Your task to perform on an android device: Open the Play Movies app and select the watchlist tab. Image 0: 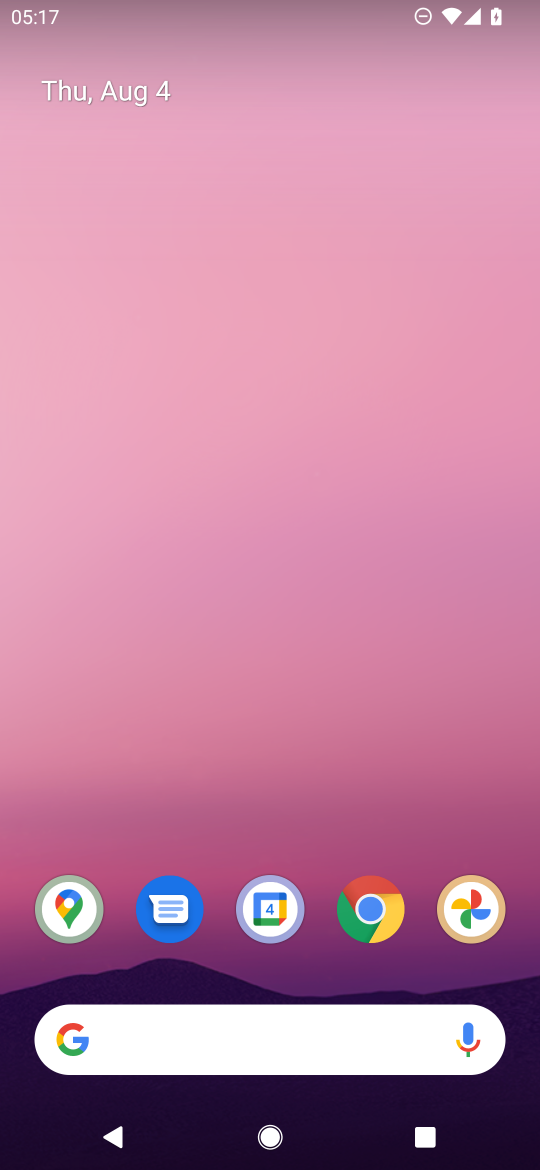
Step 0: press home button
Your task to perform on an android device: Open the Play Movies app and select the watchlist tab. Image 1: 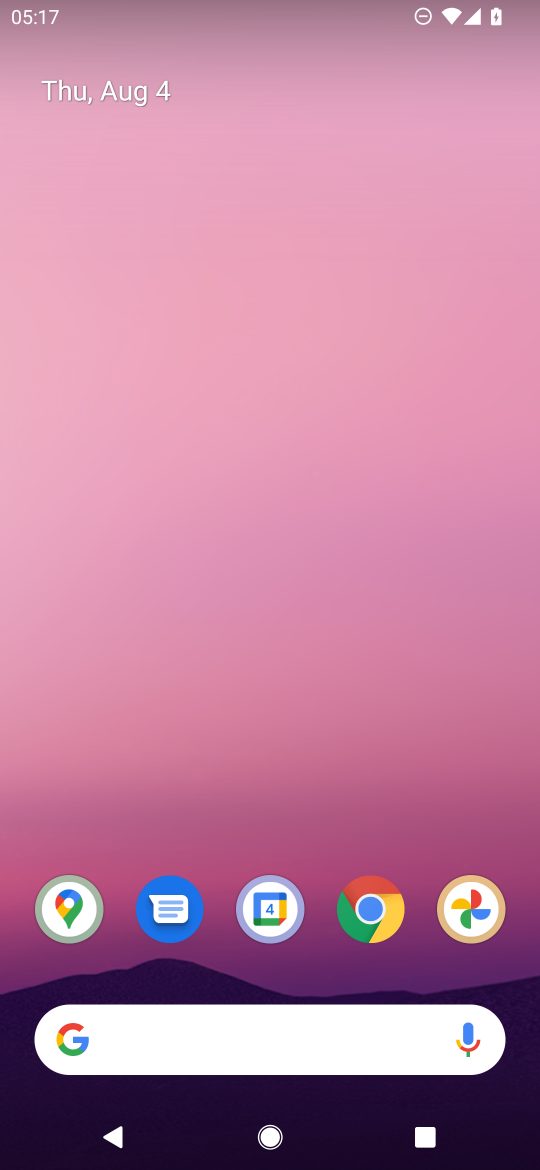
Step 1: task complete